Your task to perform on an android device: Clear all items from cart on walmart. Add "energizer triple a" to the cart on walmart, then select checkout. Image 0: 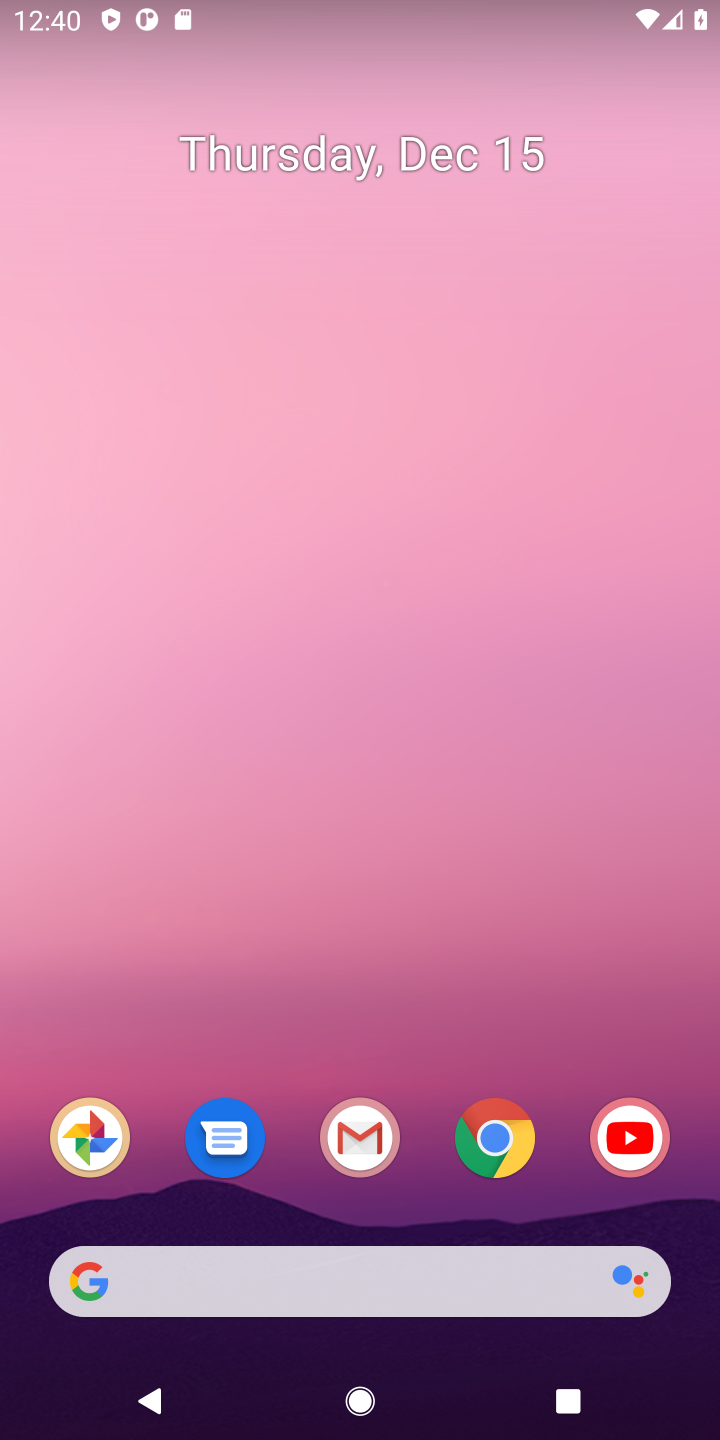
Step 0: click (511, 1132)
Your task to perform on an android device: Clear all items from cart on walmart. Add "energizer triple a" to the cart on walmart, then select checkout. Image 1: 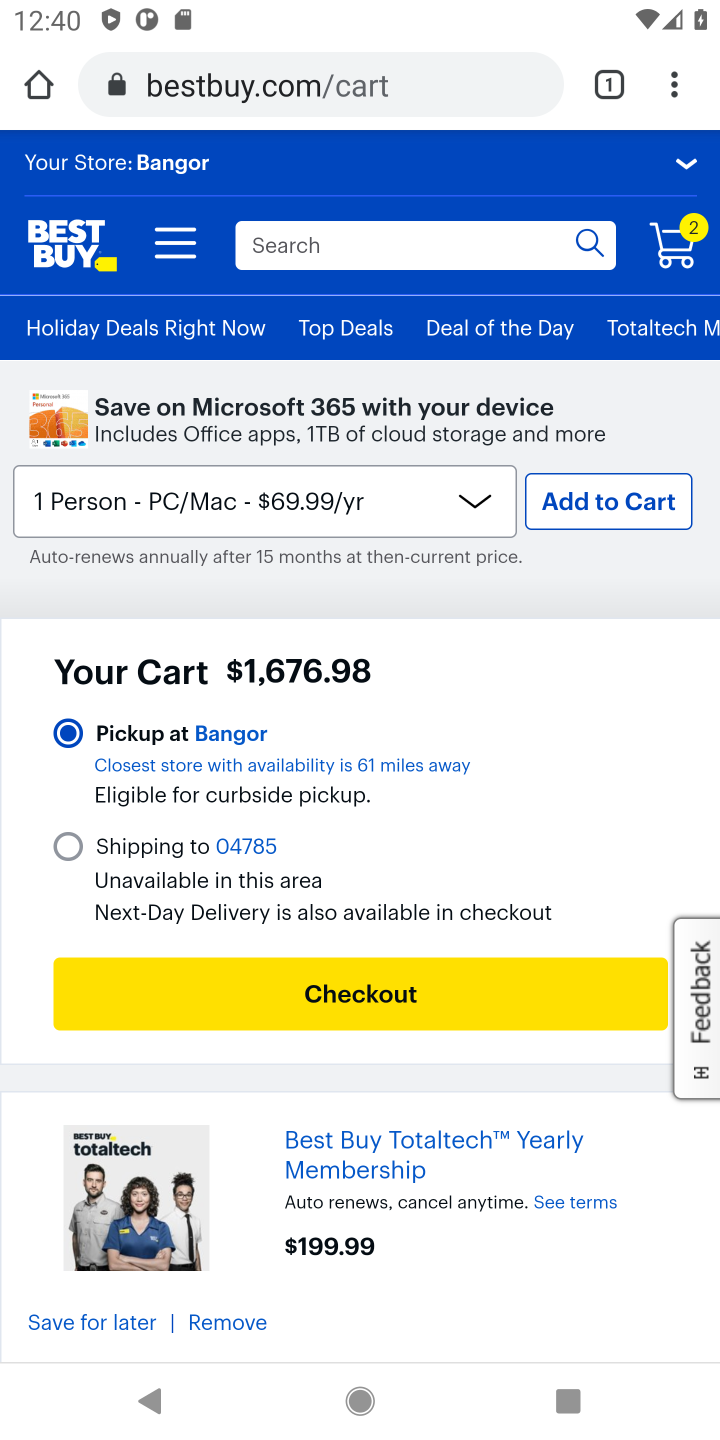
Step 1: click (319, 100)
Your task to perform on an android device: Clear all items from cart on walmart. Add "energizer triple a" to the cart on walmart, then select checkout. Image 2: 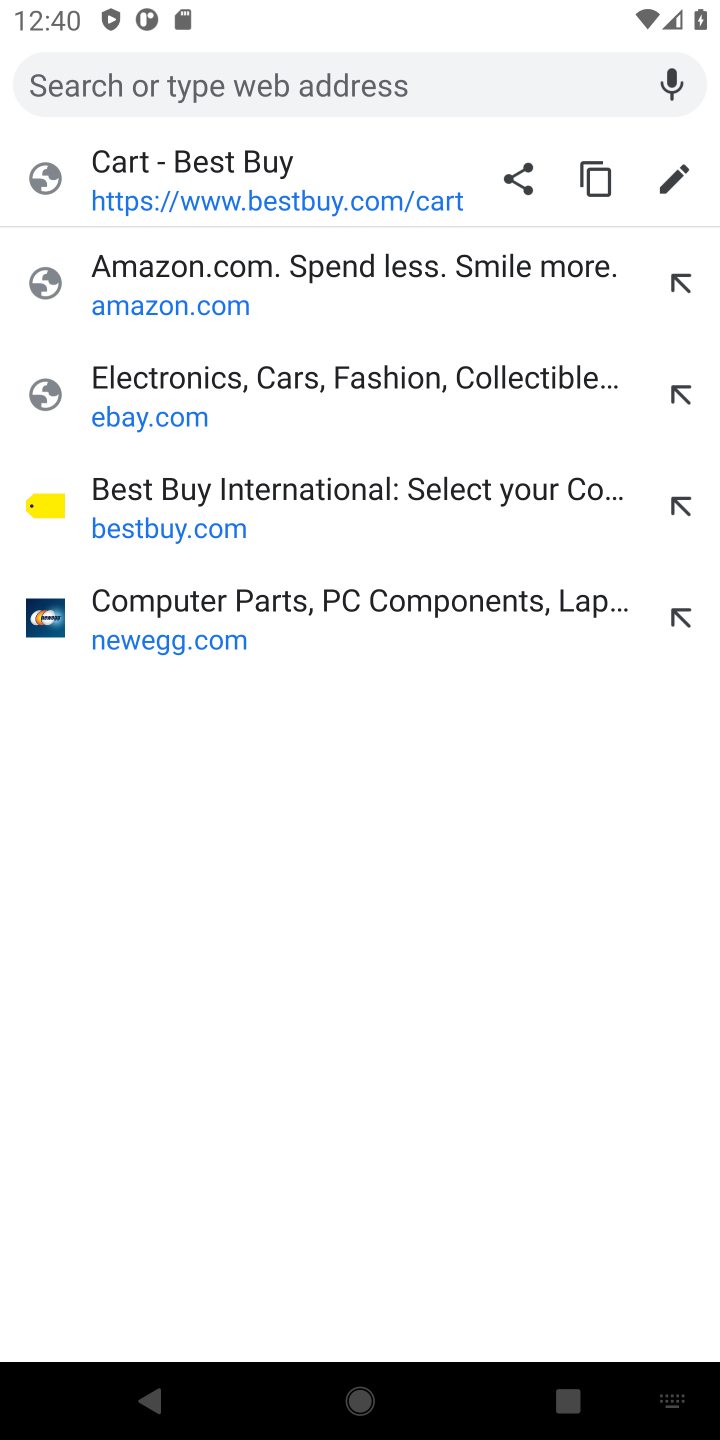
Step 2: type "walmart"
Your task to perform on an android device: Clear all items from cart on walmart. Add "energizer triple a" to the cart on walmart, then select checkout. Image 3: 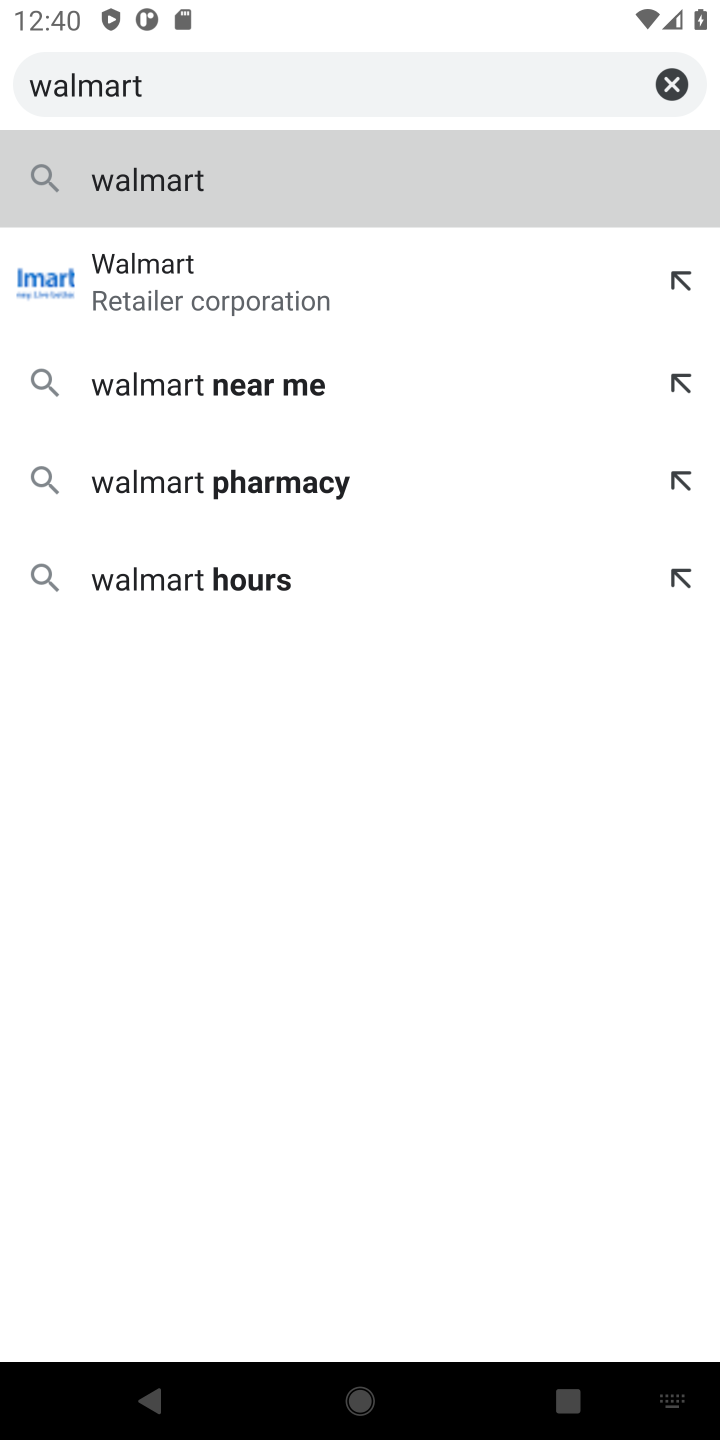
Step 3: type ".com"
Your task to perform on an android device: Clear all items from cart on walmart. Add "energizer triple a" to the cart on walmart, then select checkout. Image 4: 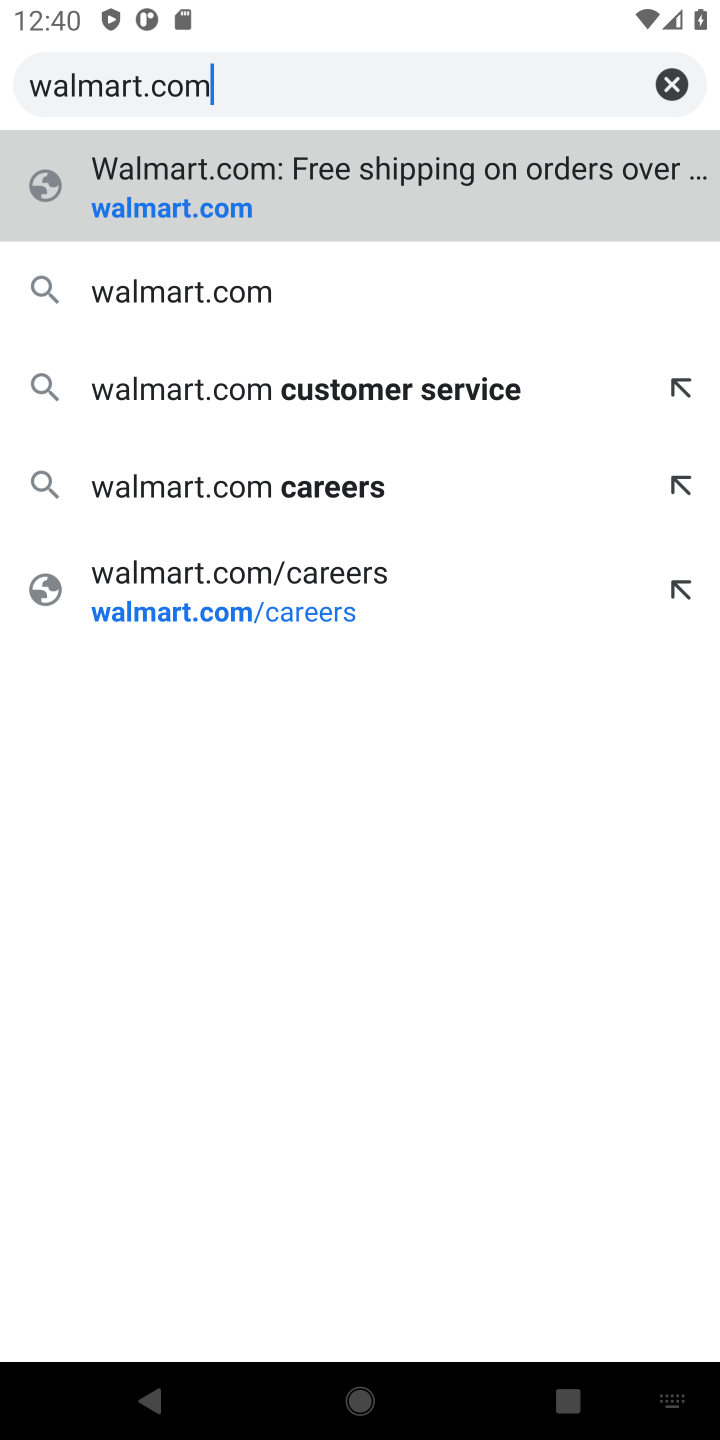
Step 4: click (167, 218)
Your task to perform on an android device: Clear all items from cart on walmart. Add "energizer triple a" to the cart on walmart, then select checkout. Image 5: 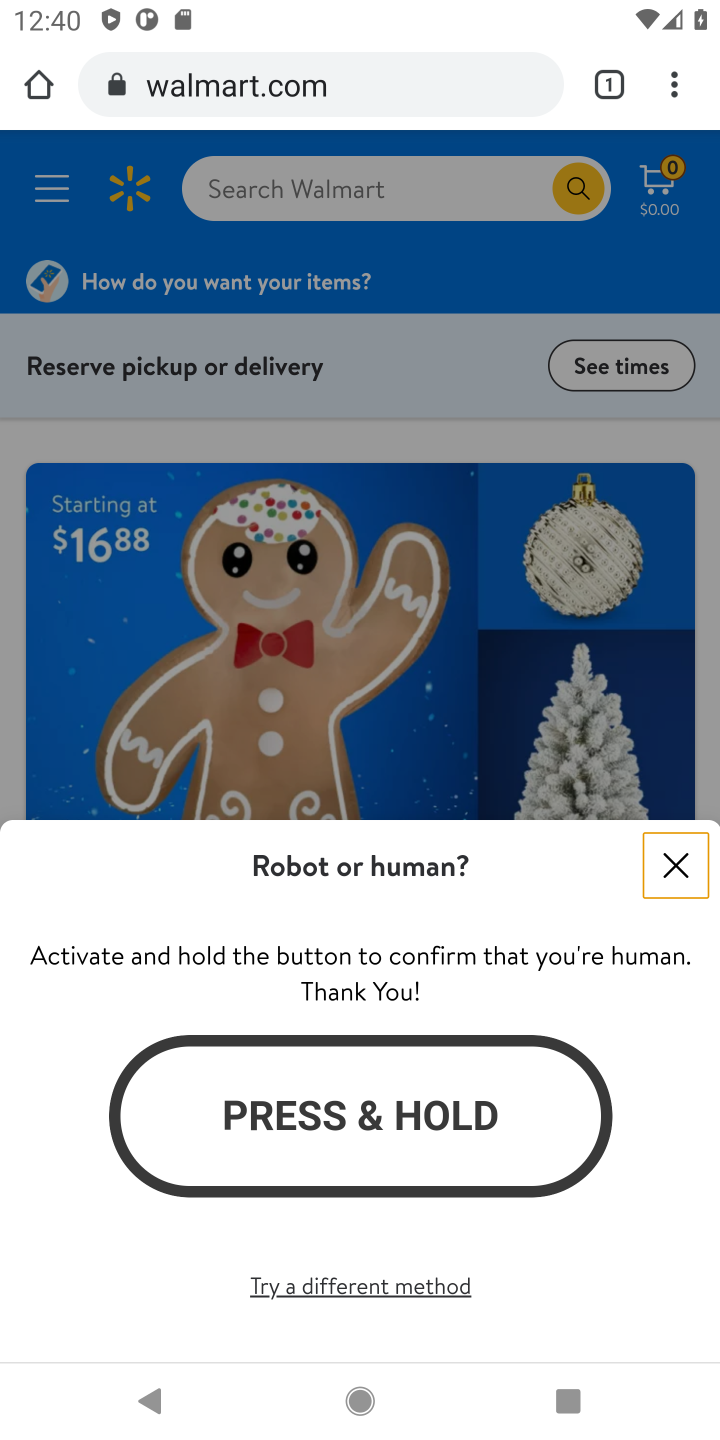
Step 5: click (320, 1137)
Your task to perform on an android device: Clear all items from cart on walmart. Add "energizer triple a" to the cart on walmart, then select checkout. Image 6: 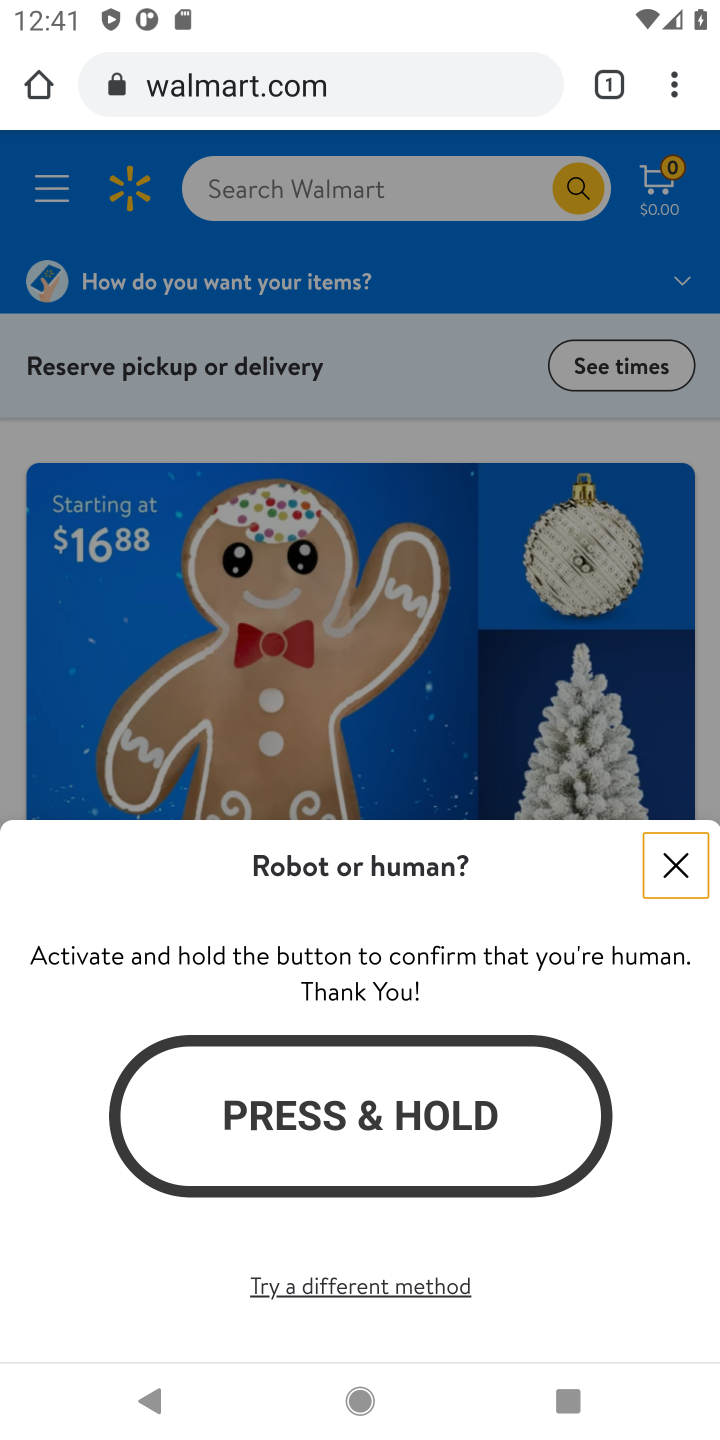
Step 6: click (320, 1137)
Your task to perform on an android device: Clear all items from cart on walmart. Add "energizer triple a" to the cart on walmart, then select checkout. Image 7: 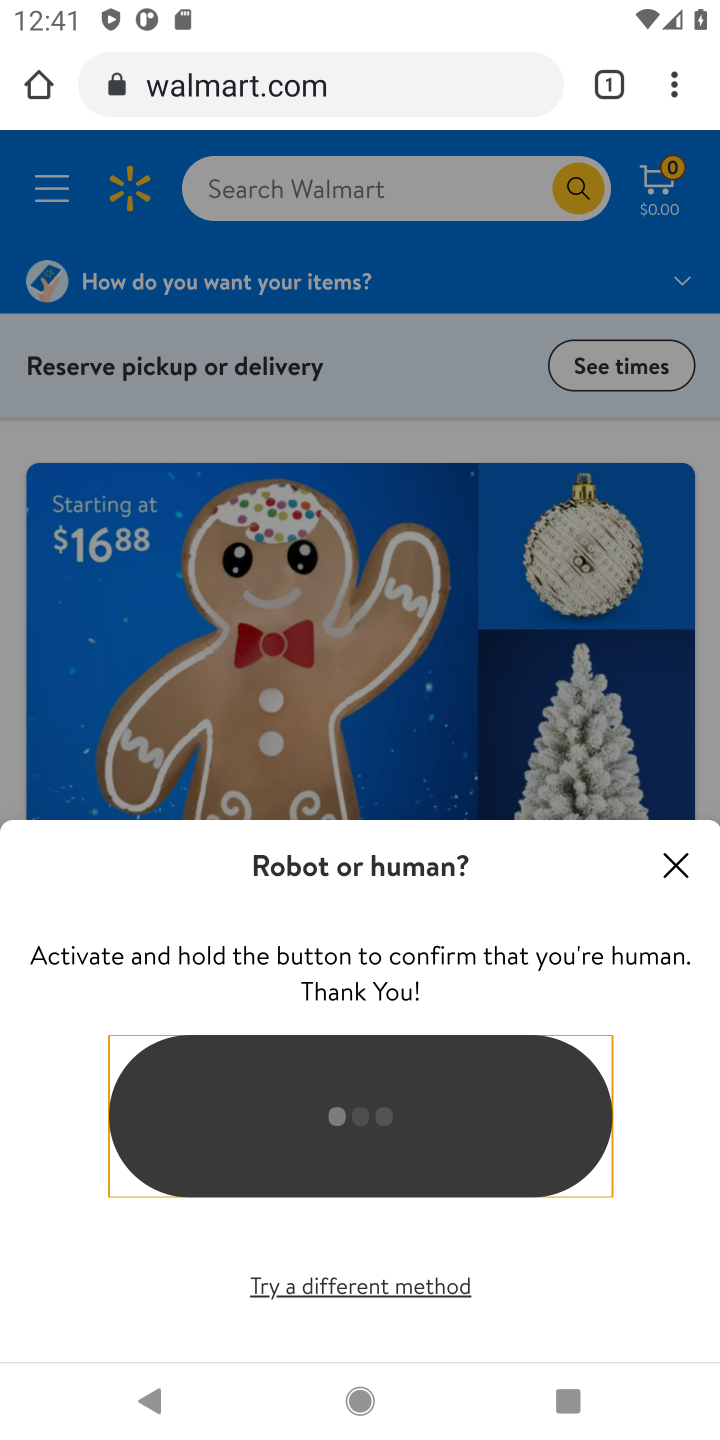
Step 7: task complete